Your task to perform on an android device: Open Android settings Image 0: 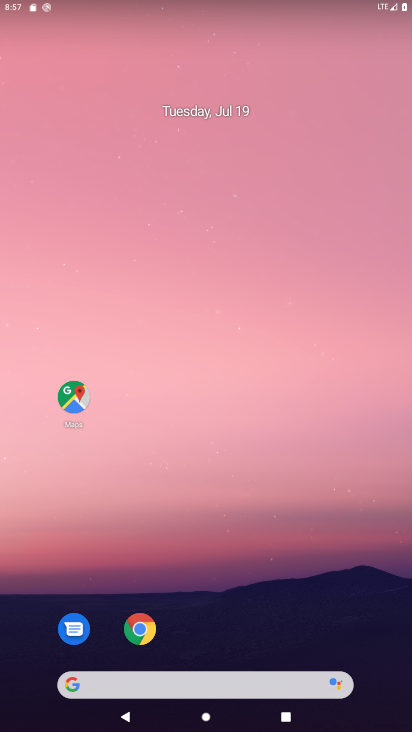
Step 0: drag from (209, 631) to (194, 8)
Your task to perform on an android device: Open Android settings Image 1: 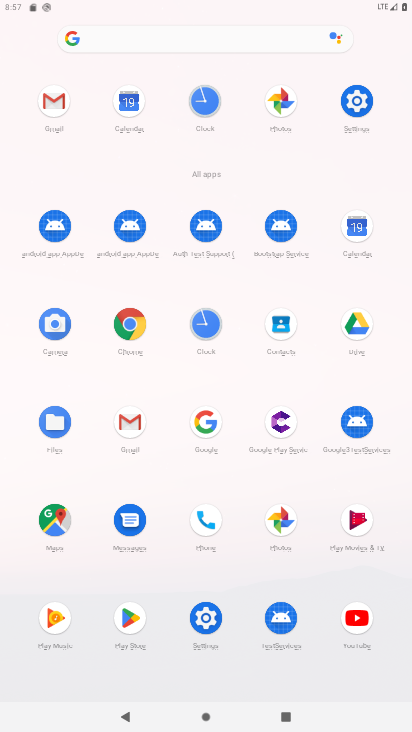
Step 1: click (366, 83)
Your task to perform on an android device: Open Android settings Image 2: 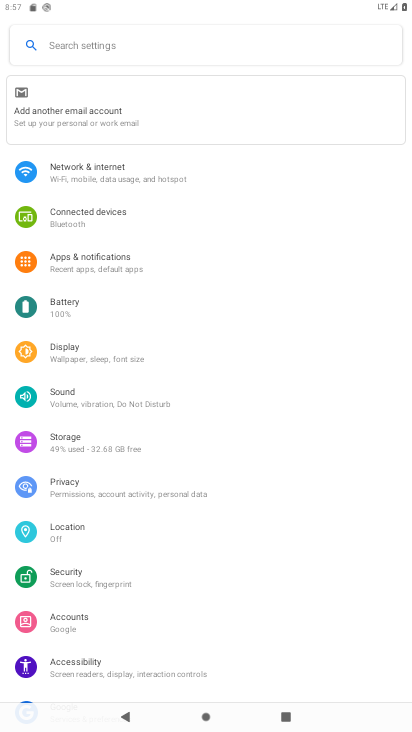
Step 2: task complete